Your task to perform on an android device: Open a new incognito window in the chrome app Image 0: 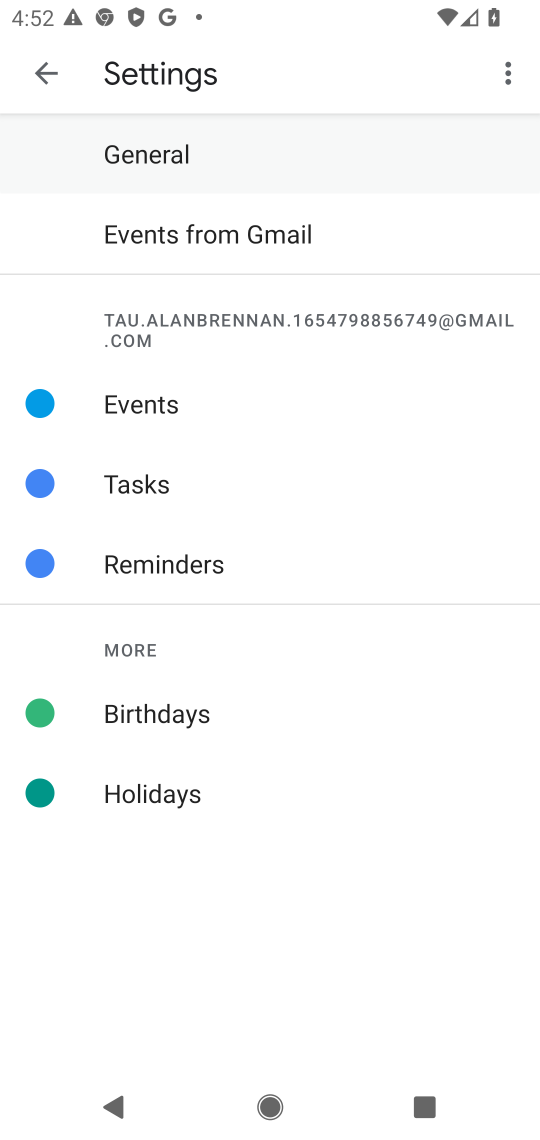
Step 0: press home button
Your task to perform on an android device: Open a new incognito window in the chrome app Image 1: 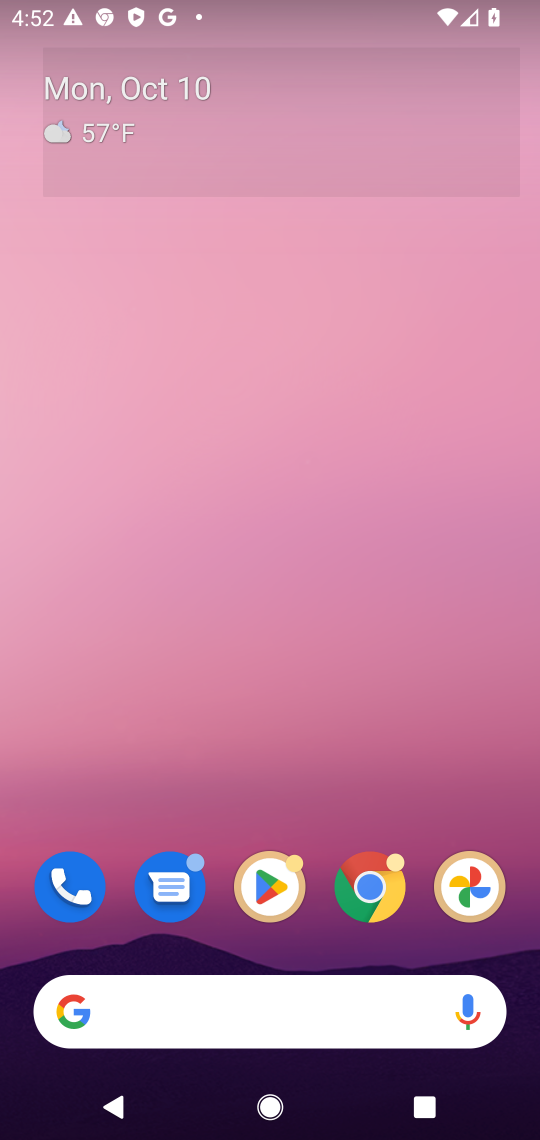
Step 1: click (383, 876)
Your task to perform on an android device: Open a new incognito window in the chrome app Image 2: 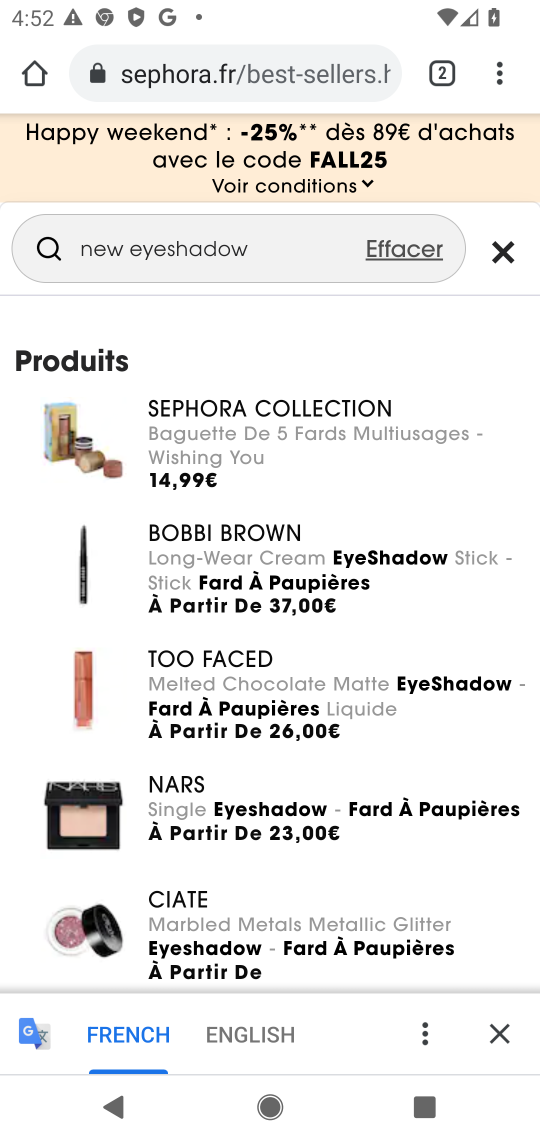
Step 2: click (498, 75)
Your task to perform on an android device: Open a new incognito window in the chrome app Image 3: 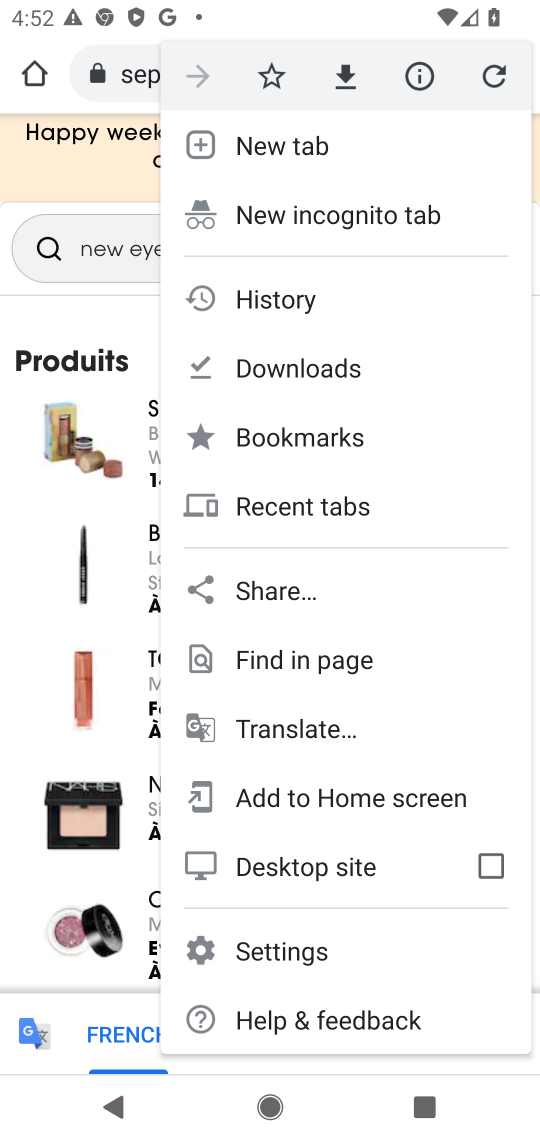
Step 3: click (399, 219)
Your task to perform on an android device: Open a new incognito window in the chrome app Image 4: 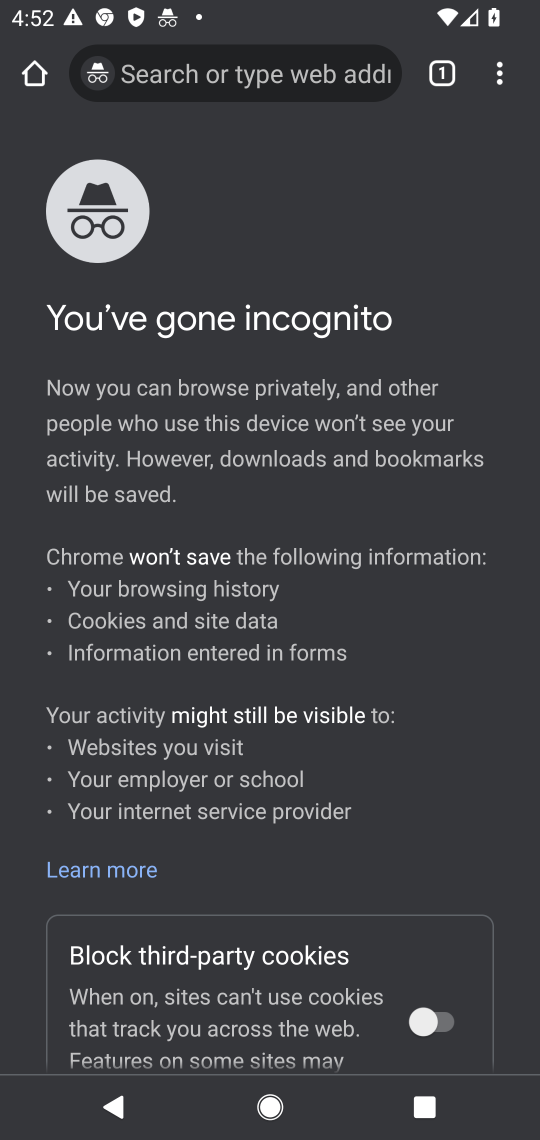
Step 4: task complete